Your task to perform on an android device: Go to internet settings Image 0: 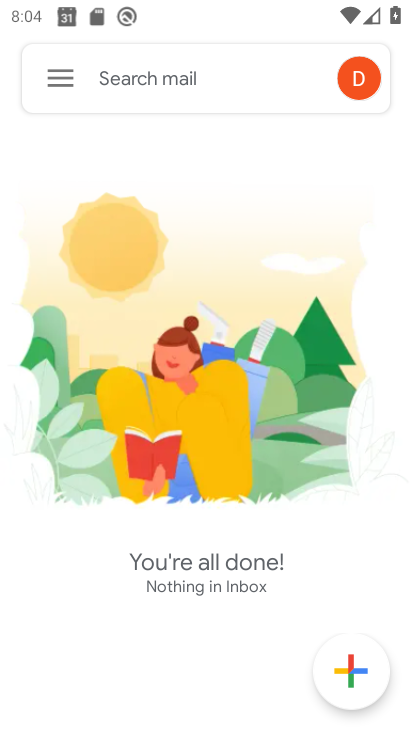
Step 0: press home button
Your task to perform on an android device: Go to internet settings Image 1: 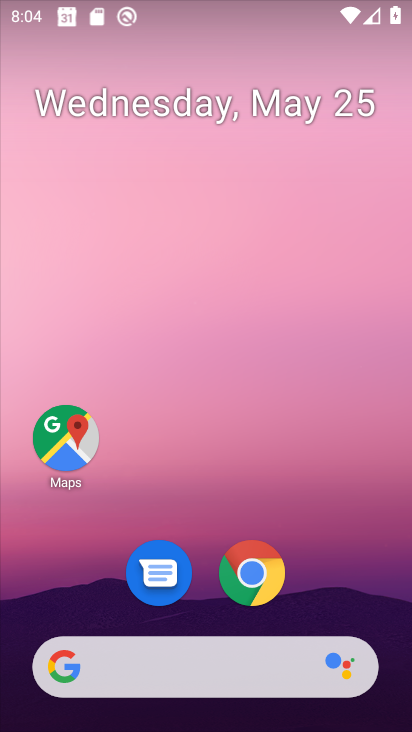
Step 1: drag from (386, 647) to (336, 208)
Your task to perform on an android device: Go to internet settings Image 2: 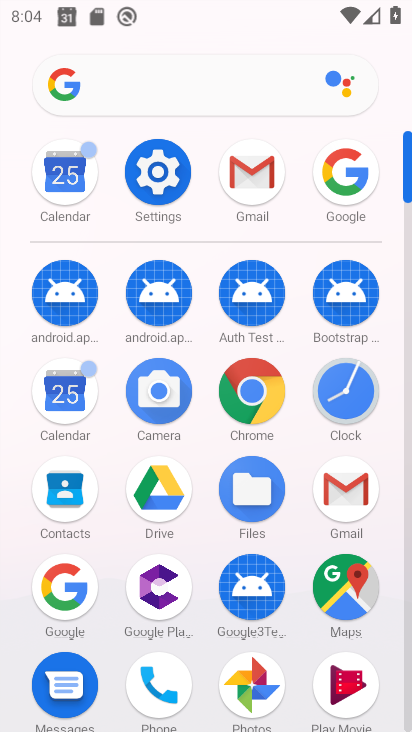
Step 2: click (157, 167)
Your task to perform on an android device: Go to internet settings Image 3: 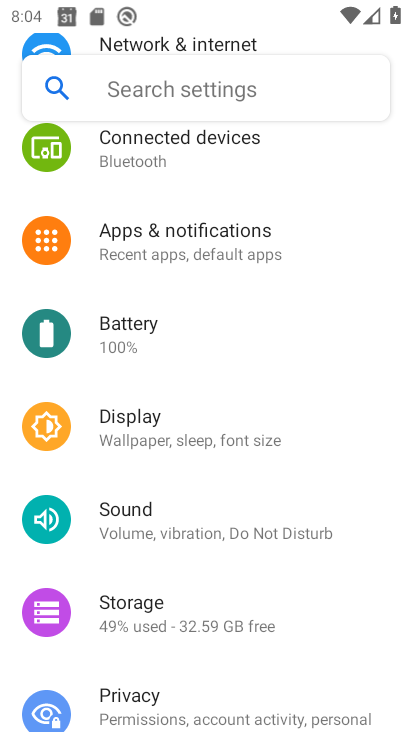
Step 3: click (189, 37)
Your task to perform on an android device: Go to internet settings Image 4: 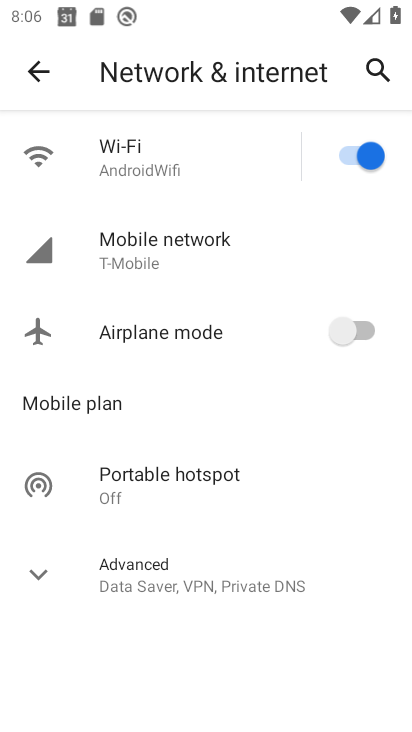
Step 4: click (129, 244)
Your task to perform on an android device: Go to internet settings Image 5: 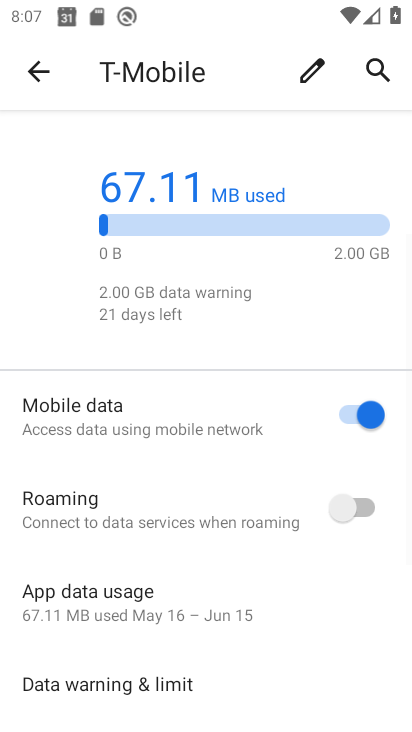
Step 5: drag from (250, 683) to (263, 305)
Your task to perform on an android device: Go to internet settings Image 6: 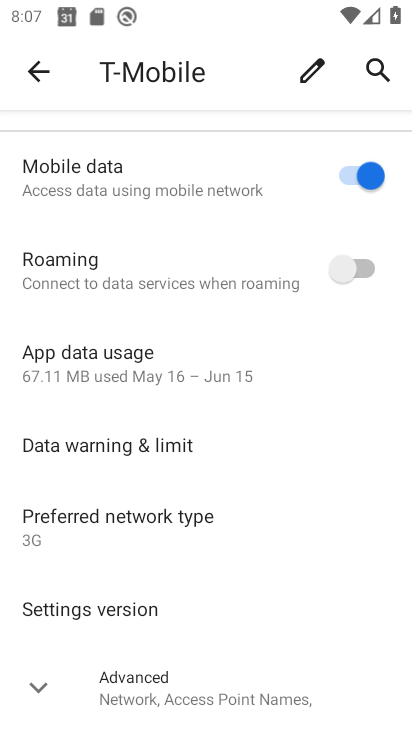
Step 6: click (40, 691)
Your task to perform on an android device: Go to internet settings Image 7: 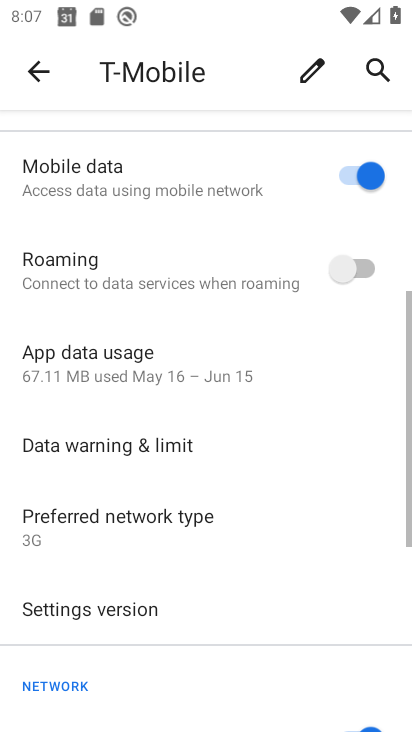
Step 7: task complete